Your task to perform on an android device: turn off improve location accuracy Image 0: 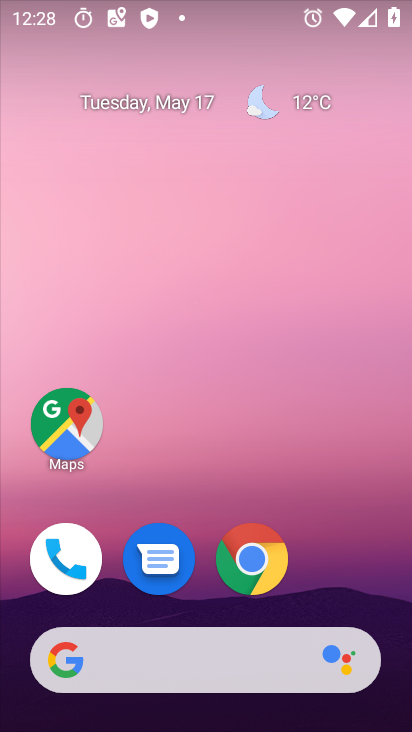
Step 0: drag from (349, 572) to (313, 125)
Your task to perform on an android device: turn off improve location accuracy Image 1: 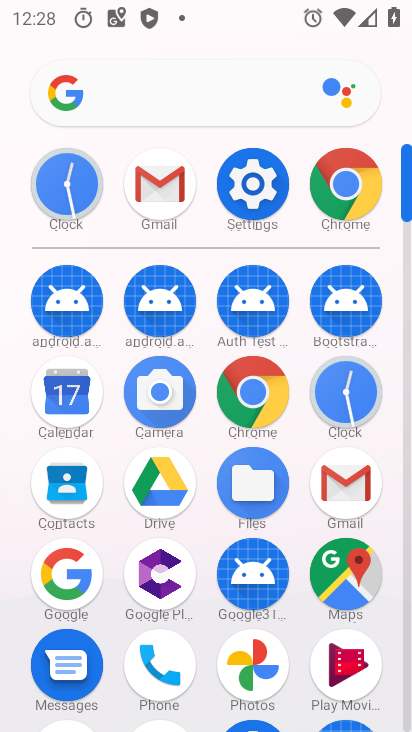
Step 1: click (262, 175)
Your task to perform on an android device: turn off improve location accuracy Image 2: 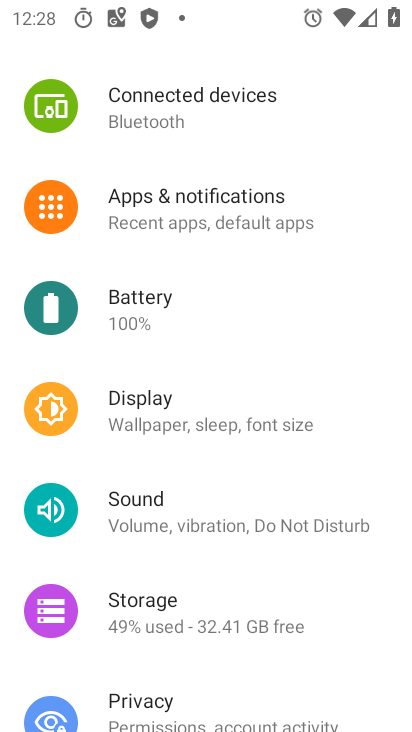
Step 2: drag from (208, 568) to (290, 102)
Your task to perform on an android device: turn off improve location accuracy Image 3: 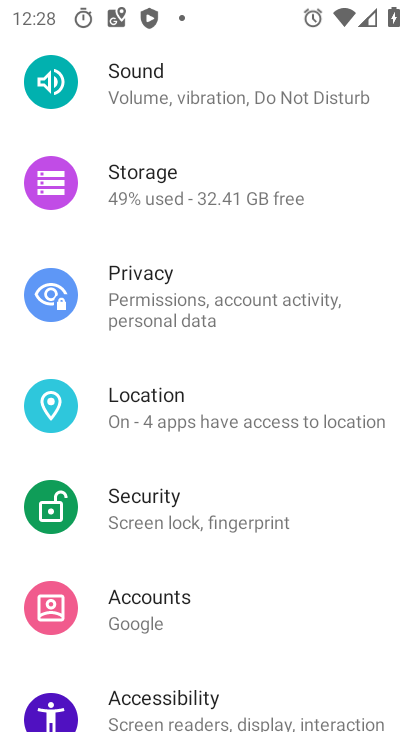
Step 3: click (175, 407)
Your task to perform on an android device: turn off improve location accuracy Image 4: 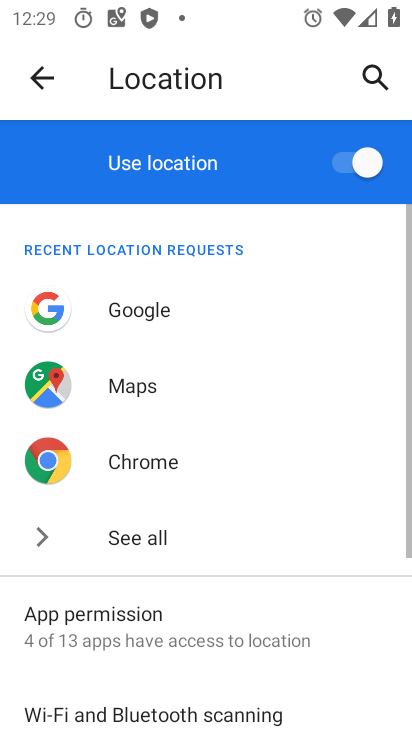
Step 4: drag from (222, 618) to (299, 169)
Your task to perform on an android device: turn off improve location accuracy Image 5: 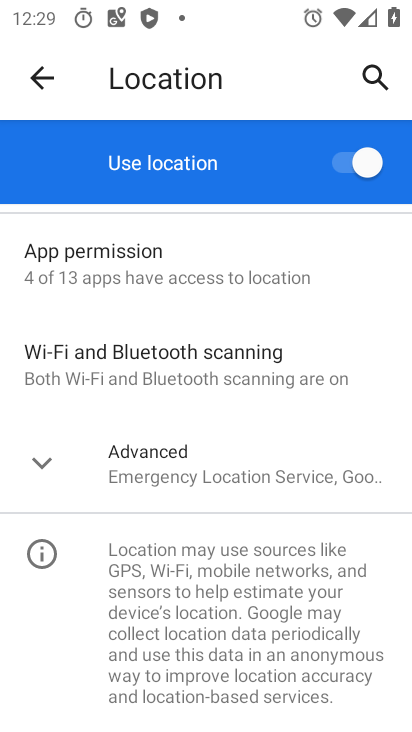
Step 5: click (216, 481)
Your task to perform on an android device: turn off improve location accuracy Image 6: 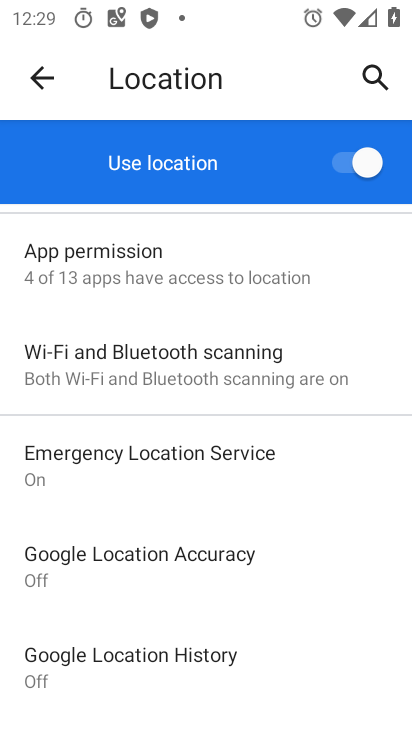
Step 6: drag from (306, 627) to (346, 446)
Your task to perform on an android device: turn off improve location accuracy Image 7: 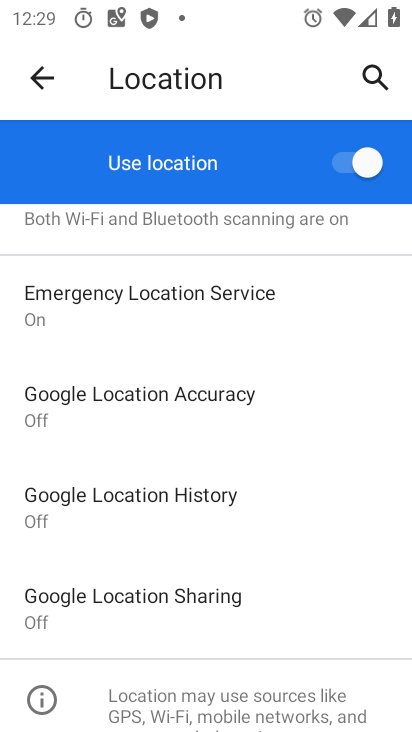
Step 7: click (199, 404)
Your task to perform on an android device: turn off improve location accuracy Image 8: 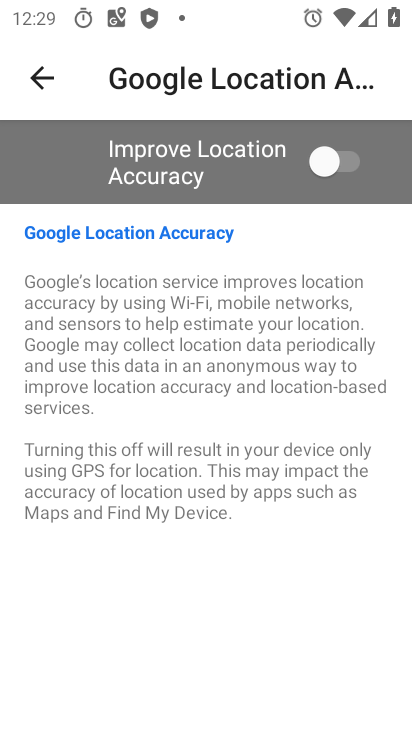
Step 8: task complete